Your task to perform on an android device: Clear the shopping cart on ebay. Search for bose quietcomfort 35 on ebay, select the first entry, add it to the cart, then select checkout. Image 0: 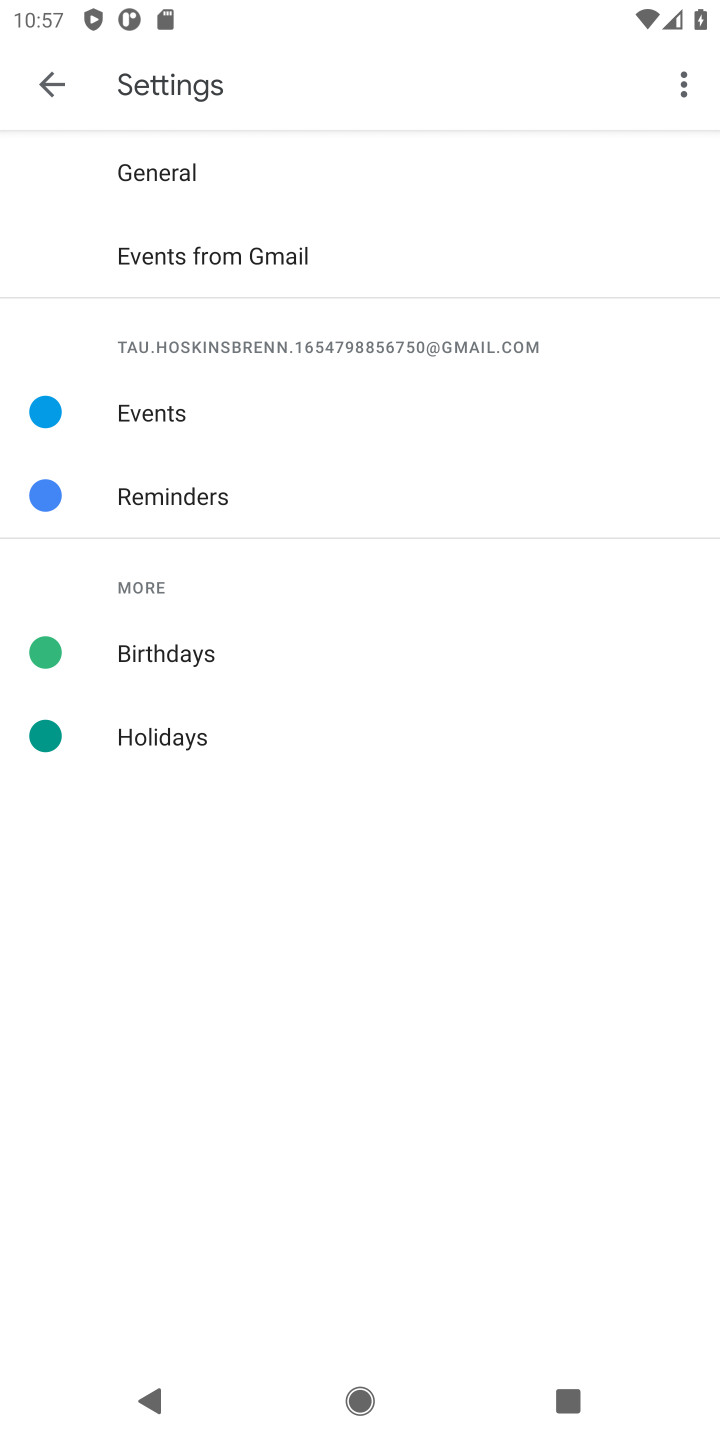
Step 0: press home button
Your task to perform on an android device: Clear the shopping cart on ebay. Search for bose quietcomfort 35 on ebay, select the first entry, add it to the cart, then select checkout. Image 1: 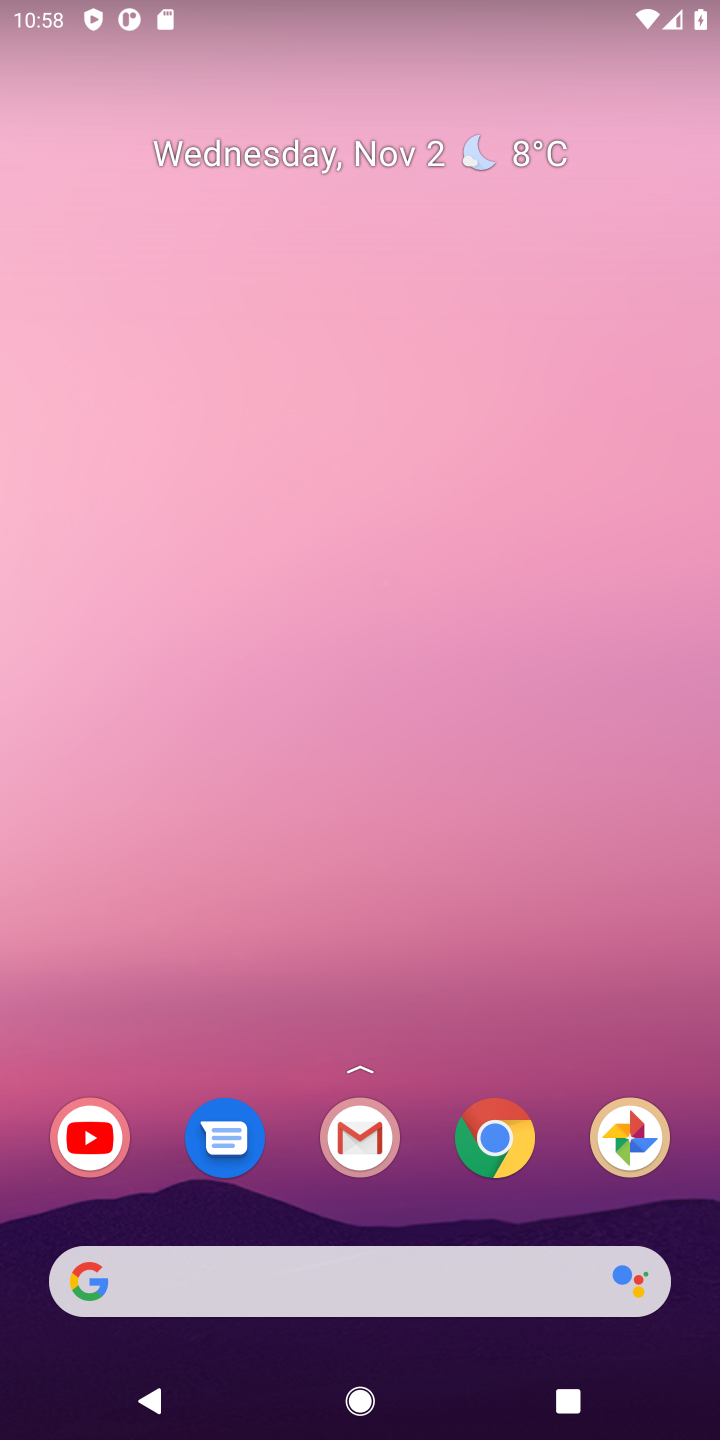
Step 1: click (507, 1179)
Your task to perform on an android device: Clear the shopping cart on ebay. Search for bose quietcomfort 35 on ebay, select the first entry, add it to the cart, then select checkout. Image 2: 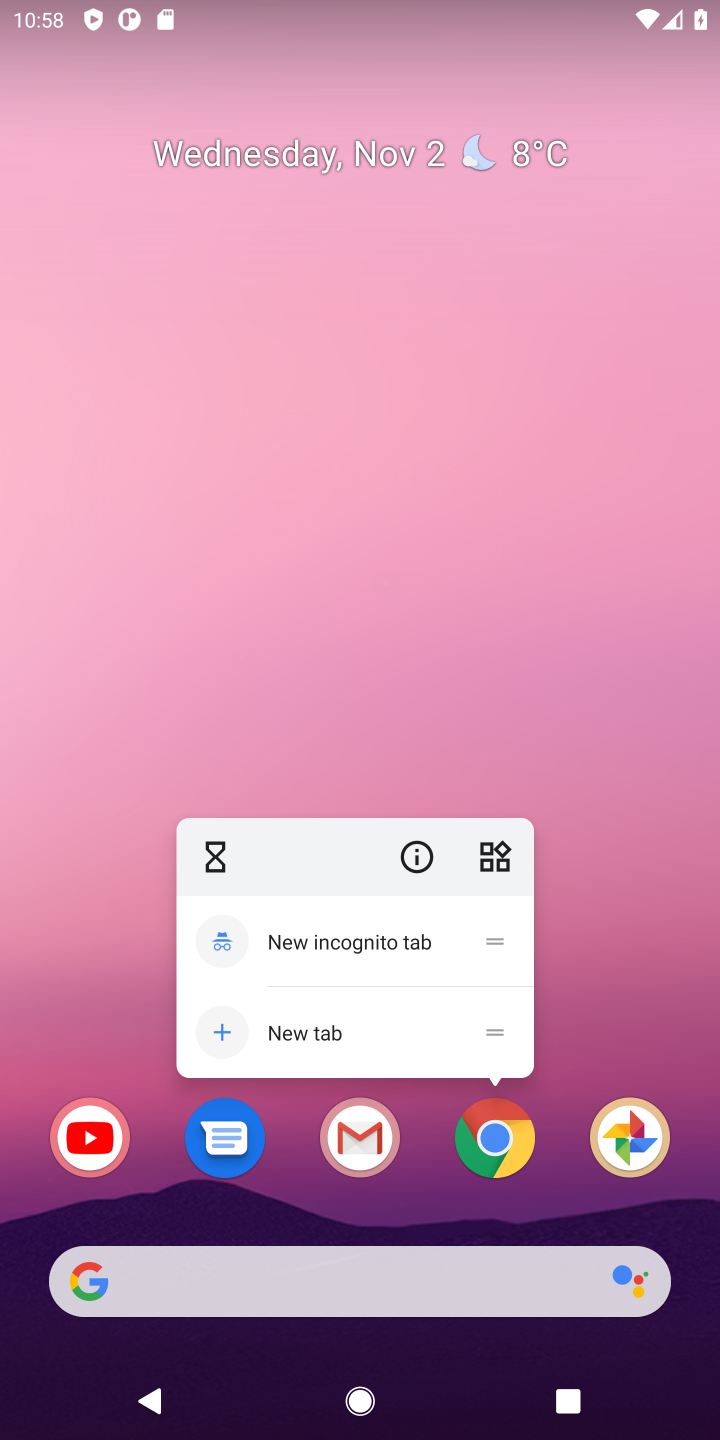
Step 2: click (472, 1172)
Your task to perform on an android device: Clear the shopping cart on ebay. Search for bose quietcomfort 35 on ebay, select the first entry, add it to the cart, then select checkout. Image 3: 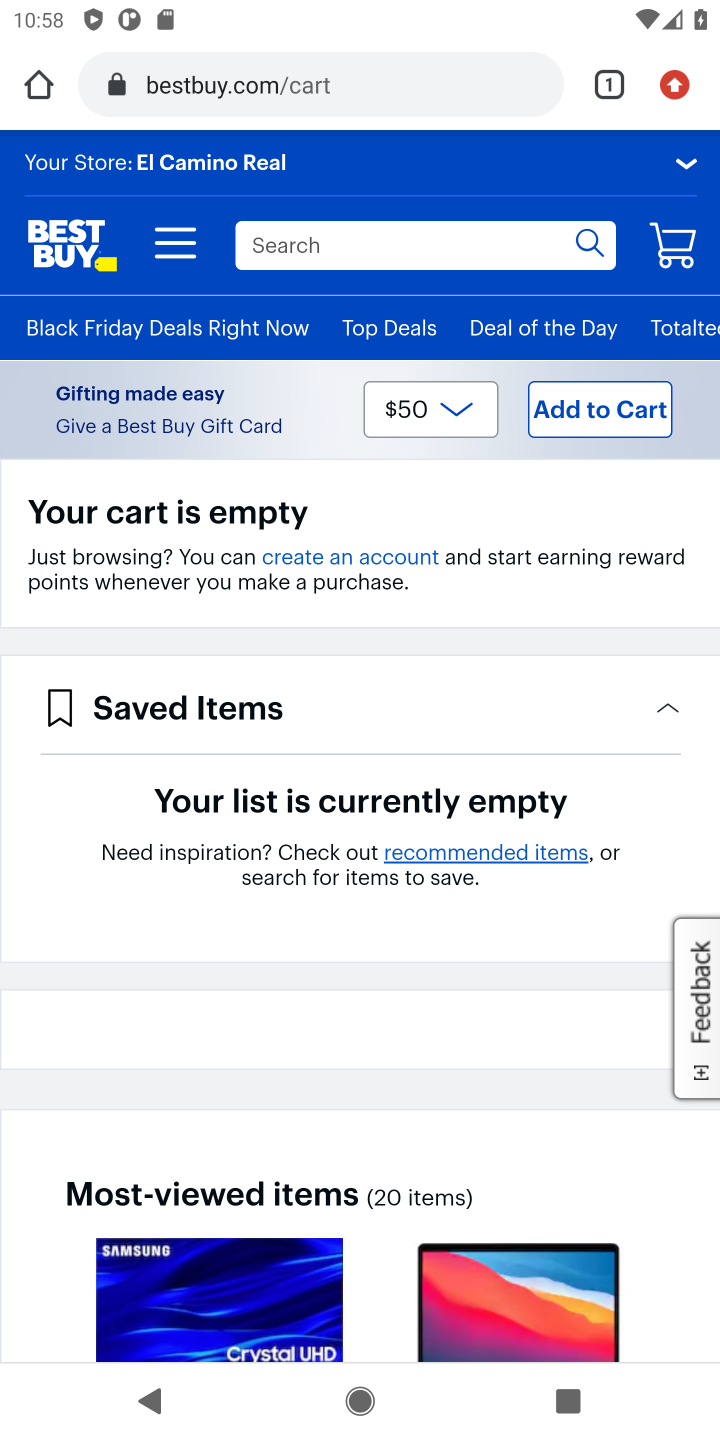
Step 3: click (266, 280)
Your task to perform on an android device: Clear the shopping cart on ebay. Search for bose quietcomfort 35 on ebay, select the first entry, add it to the cart, then select checkout. Image 4: 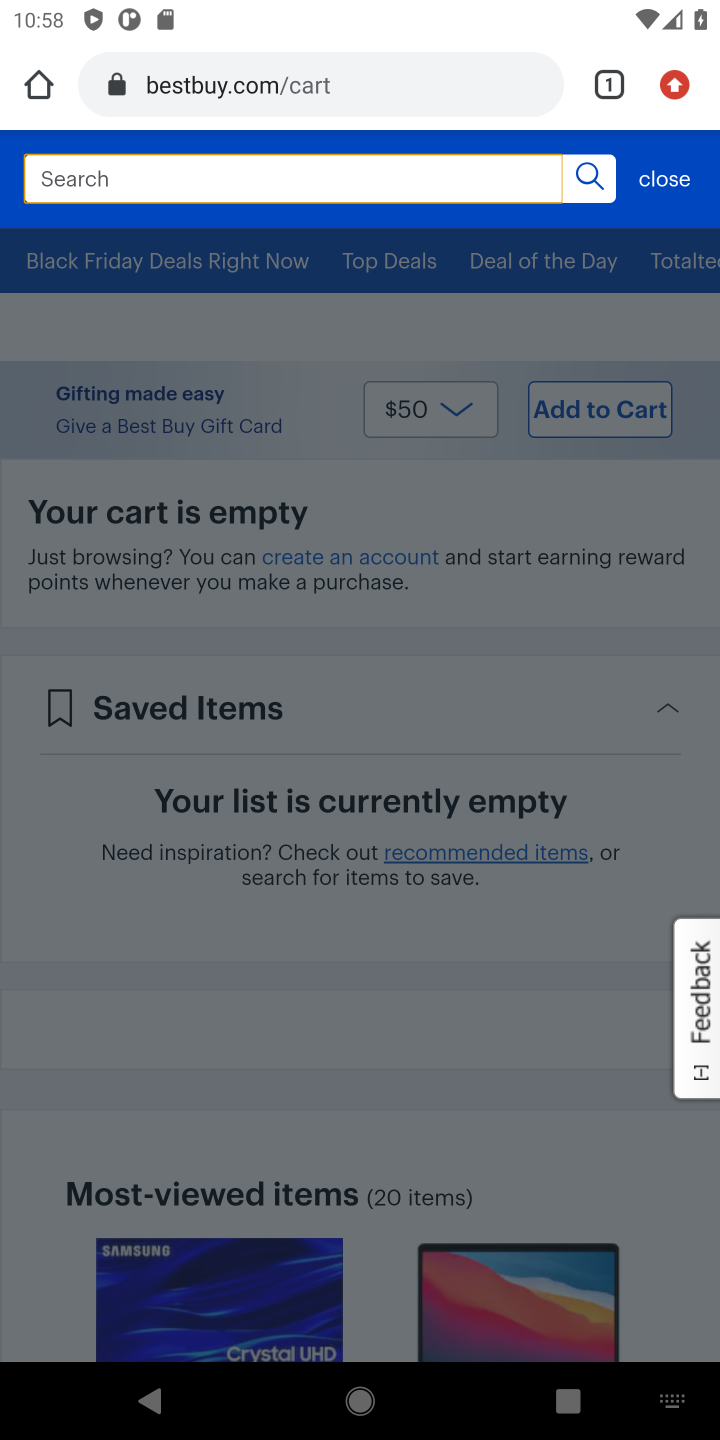
Step 4: click (235, 85)
Your task to perform on an android device: Clear the shopping cart on ebay. Search for bose quietcomfort 35 on ebay, select the first entry, add it to the cart, then select checkout. Image 5: 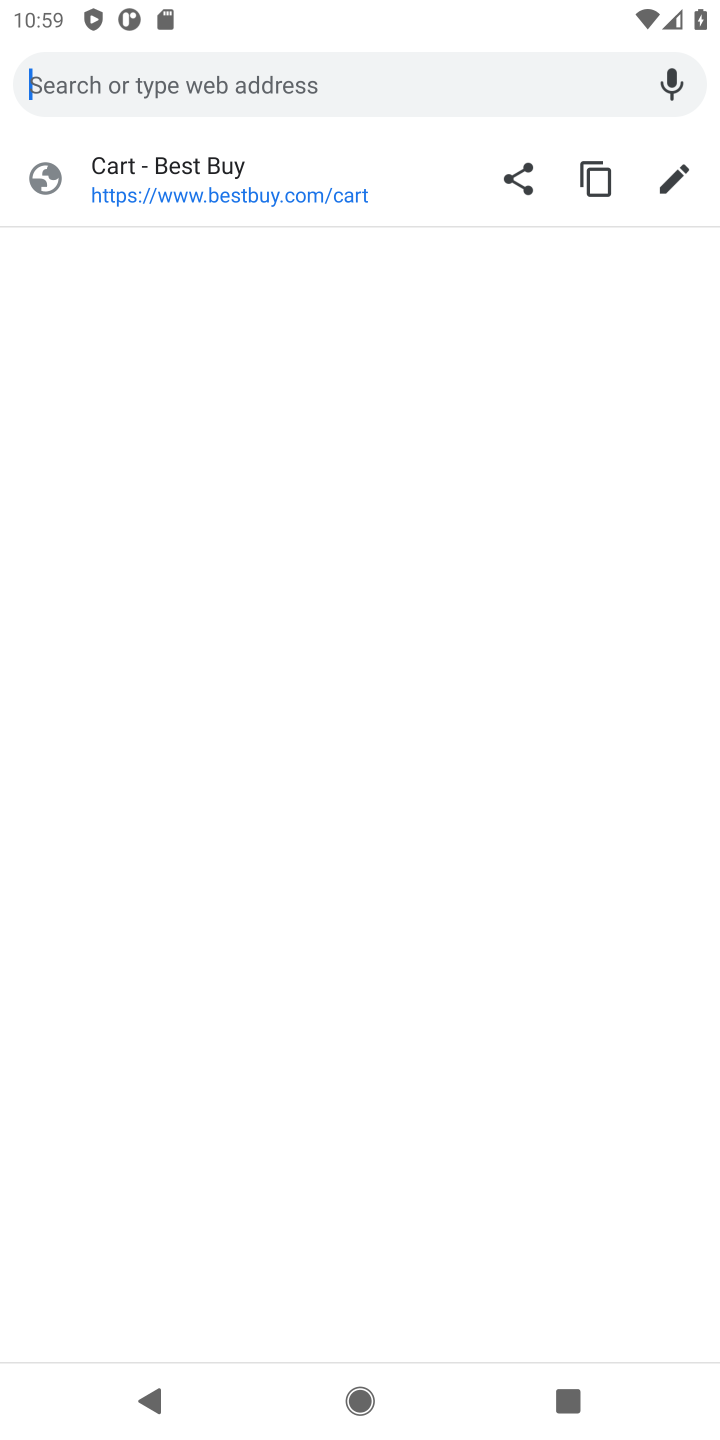
Step 5: type "ebay"
Your task to perform on an android device: Clear the shopping cart on ebay. Search for bose quietcomfort 35 on ebay, select the first entry, add it to the cart, then select checkout. Image 6: 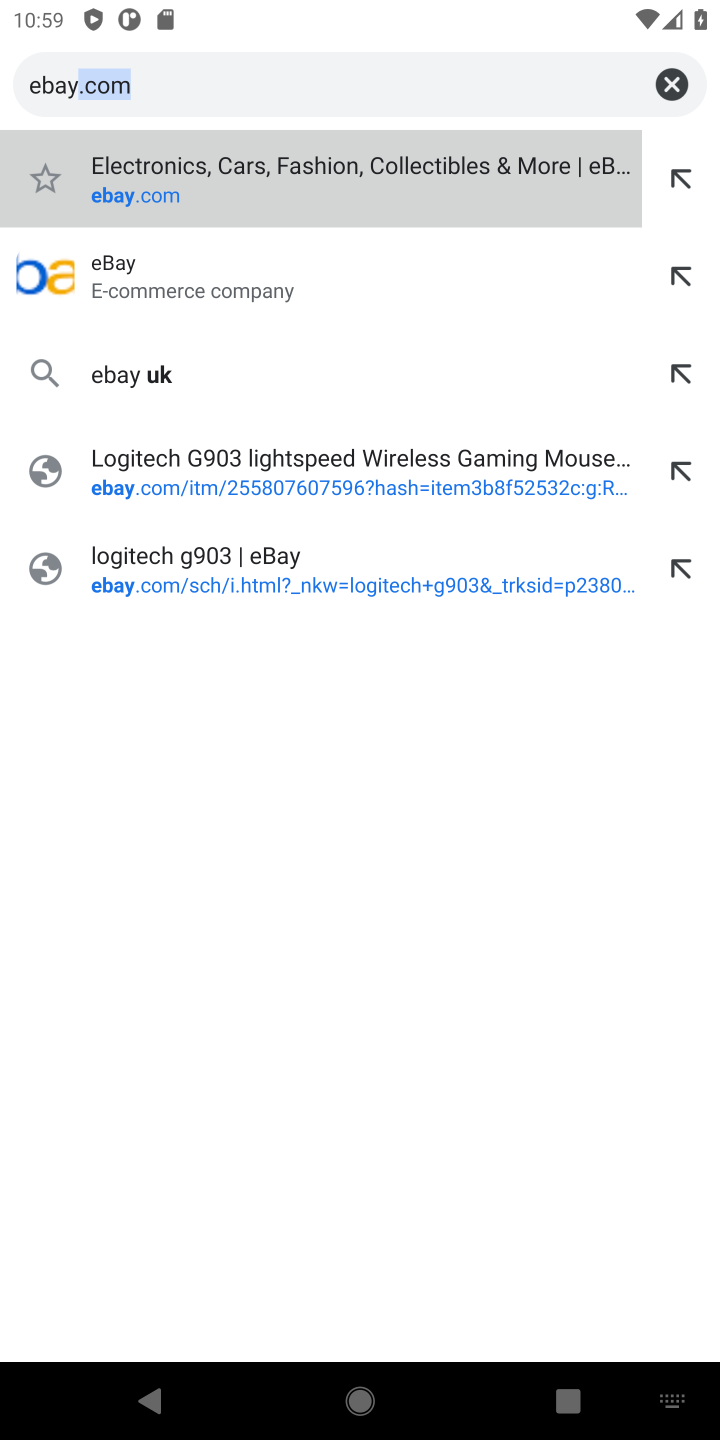
Step 6: click (259, 287)
Your task to perform on an android device: Clear the shopping cart on ebay. Search for bose quietcomfort 35 on ebay, select the first entry, add it to the cart, then select checkout. Image 7: 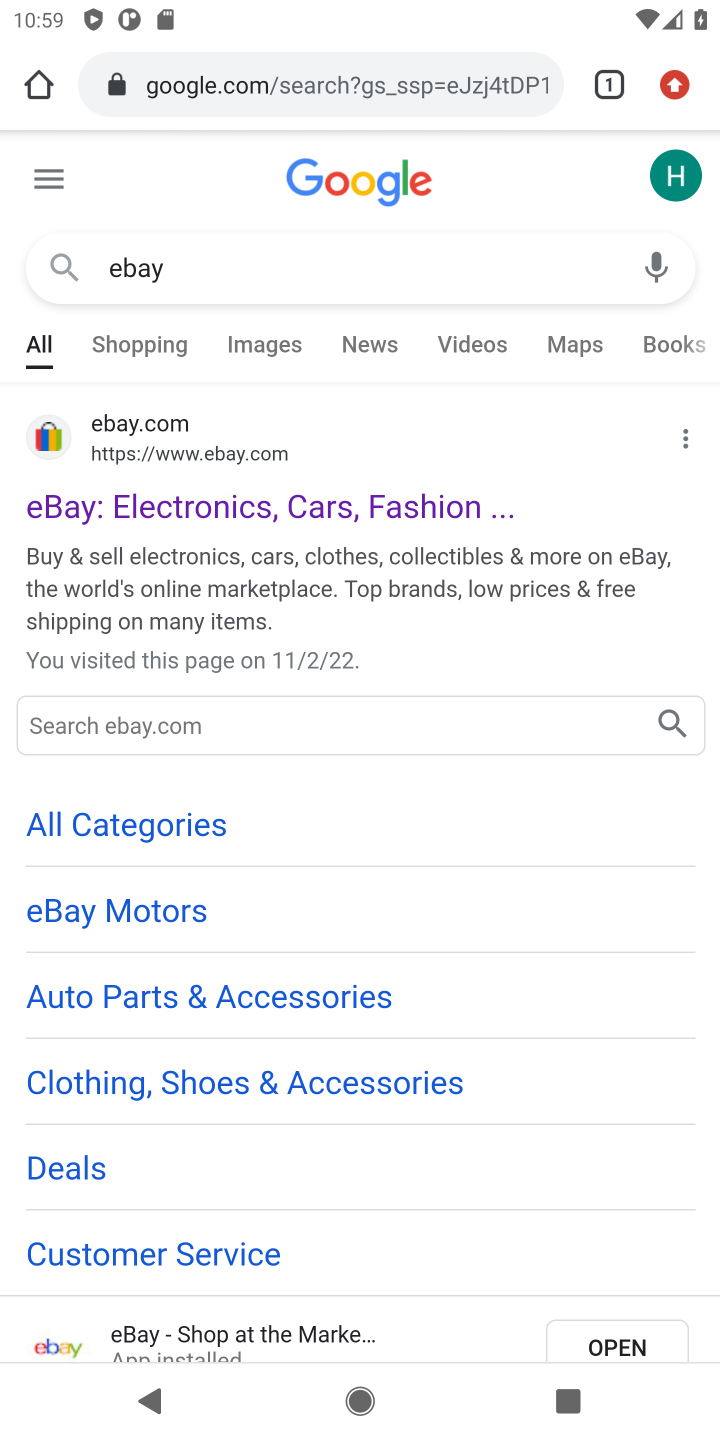
Step 7: click (112, 514)
Your task to perform on an android device: Clear the shopping cart on ebay. Search for bose quietcomfort 35 on ebay, select the first entry, add it to the cart, then select checkout. Image 8: 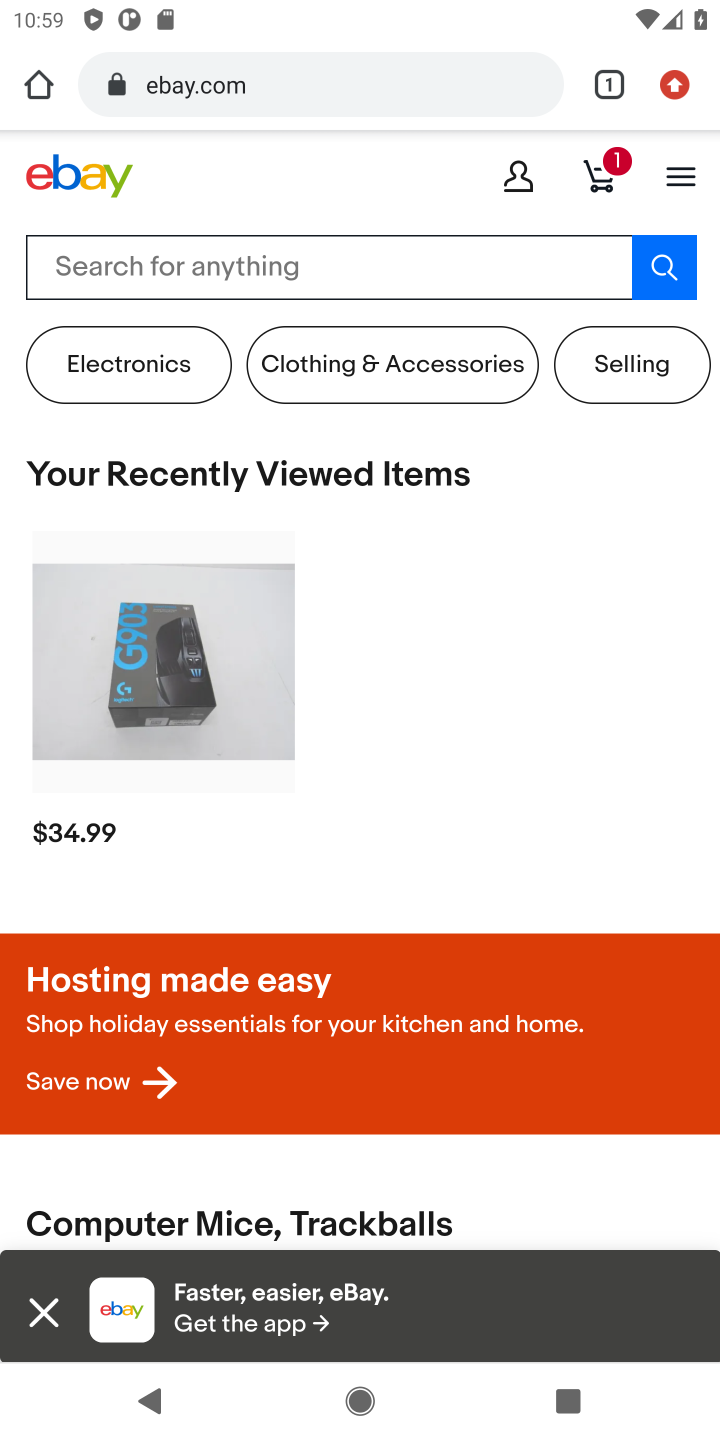
Step 8: click (616, 162)
Your task to perform on an android device: Clear the shopping cart on ebay. Search for bose quietcomfort 35 on ebay, select the first entry, add it to the cart, then select checkout. Image 9: 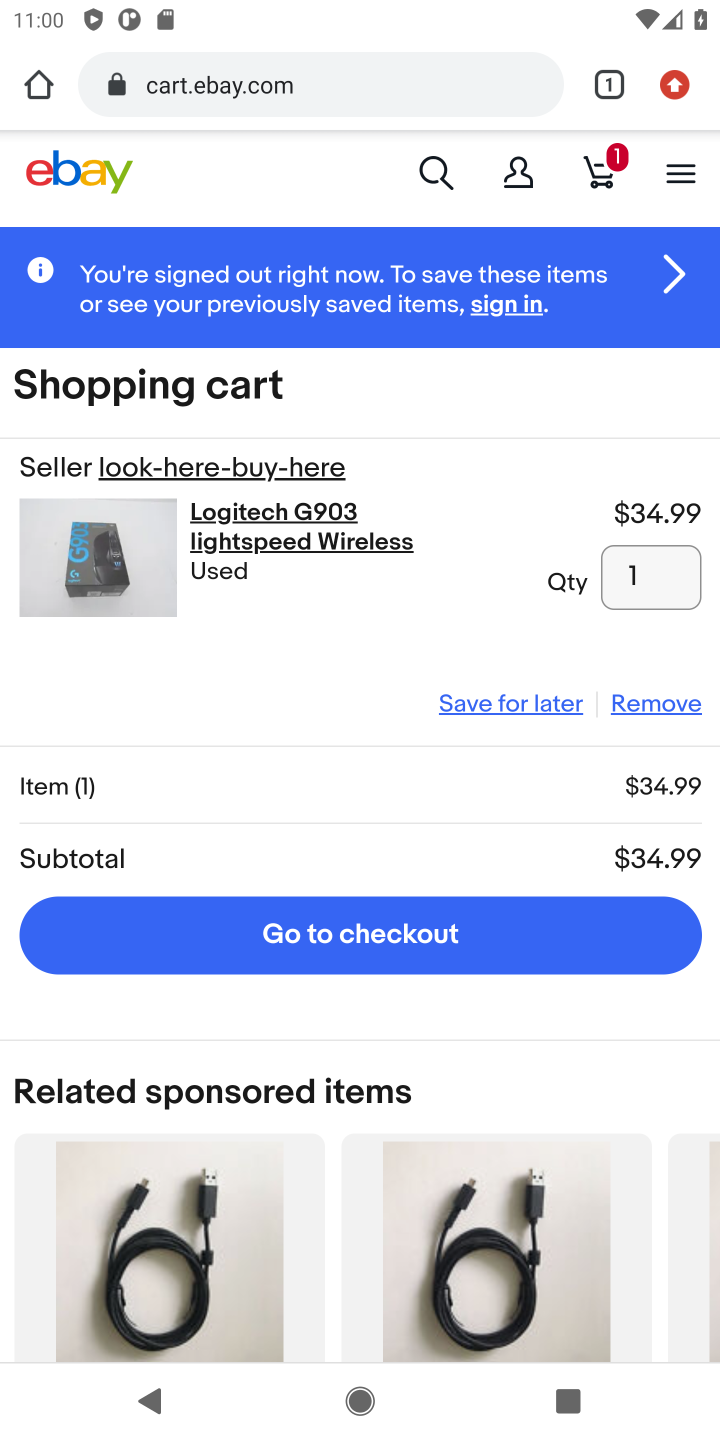
Step 9: click (667, 710)
Your task to perform on an android device: Clear the shopping cart on ebay. Search for bose quietcomfort 35 on ebay, select the first entry, add it to the cart, then select checkout. Image 10: 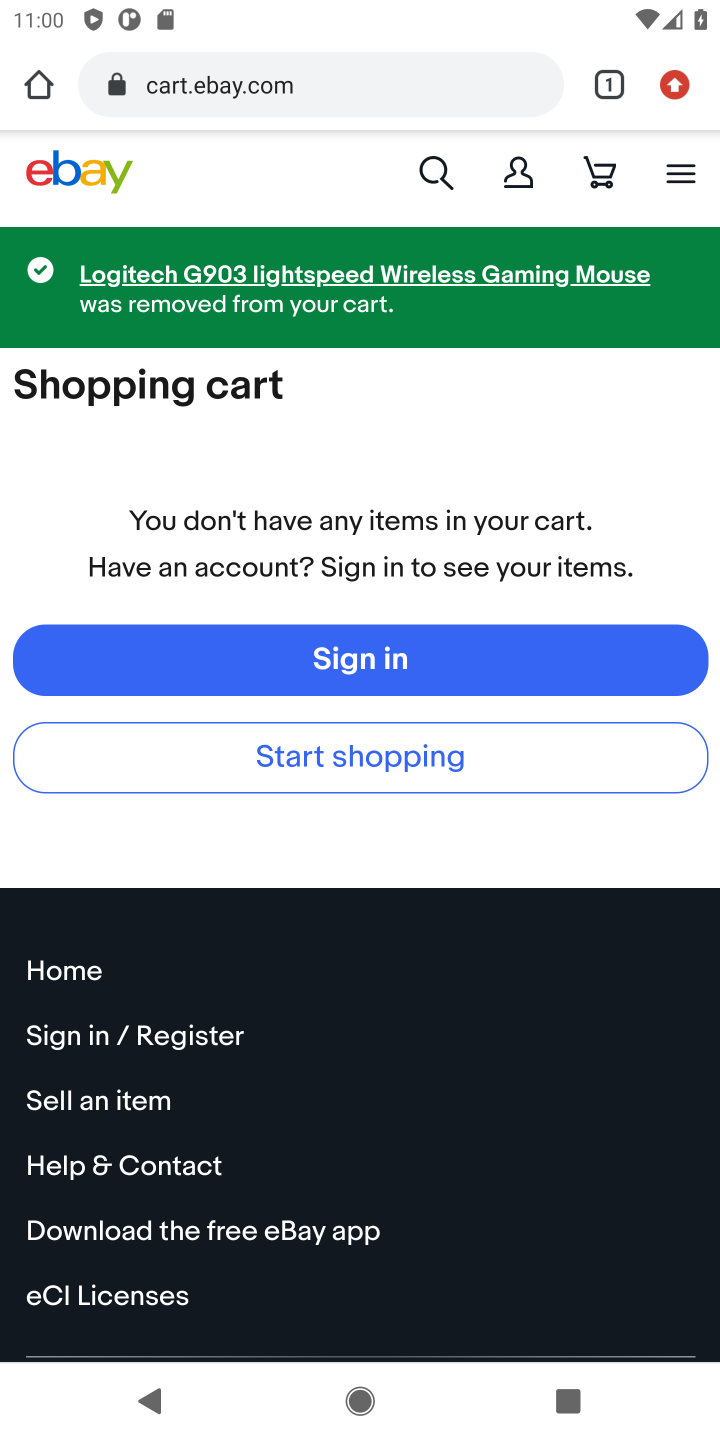
Step 10: click (419, 178)
Your task to perform on an android device: Clear the shopping cart on ebay. Search for bose quietcomfort 35 on ebay, select the first entry, add it to the cart, then select checkout. Image 11: 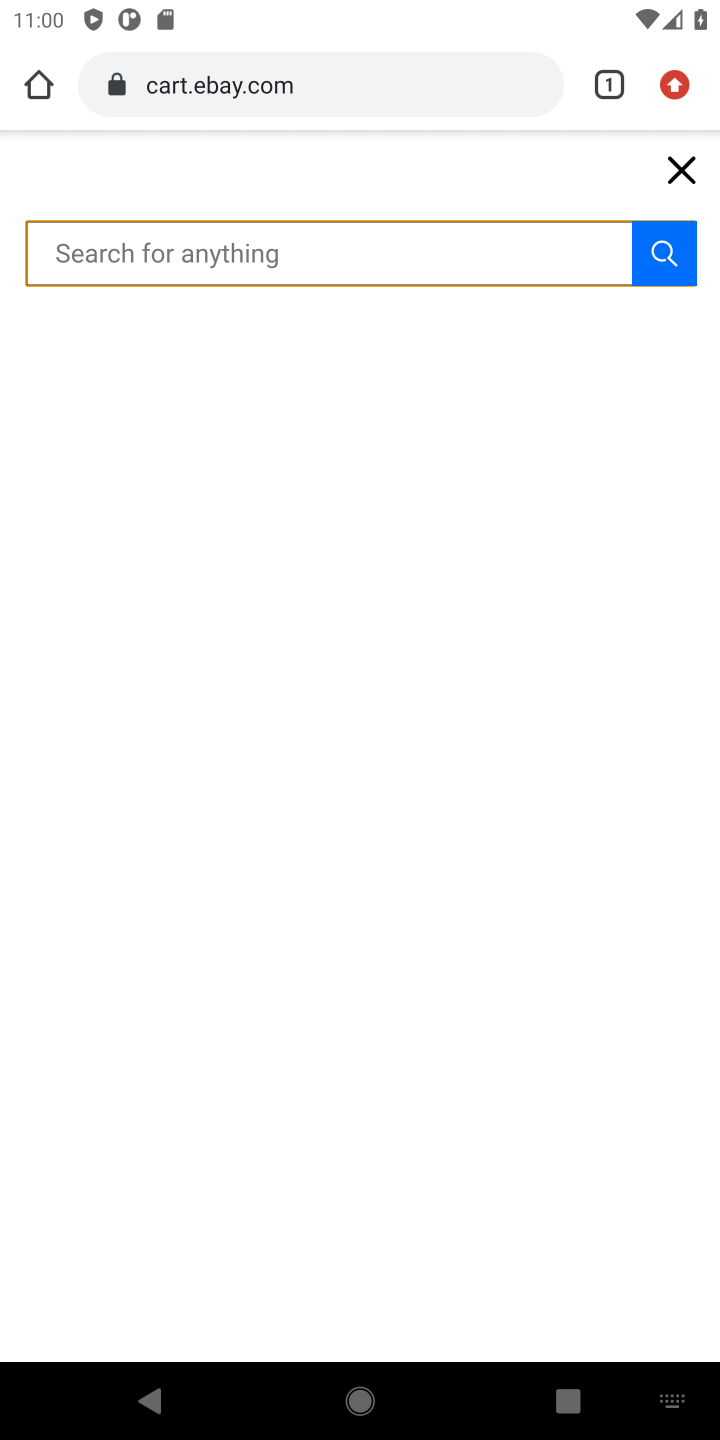
Step 11: type " bose quietcomfort 35"
Your task to perform on an android device: Clear the shopping cart on ebay. Search for bose quietcomfort 35 on ebay, select the first entry, add it to the cart, then select checkout. Image 12: 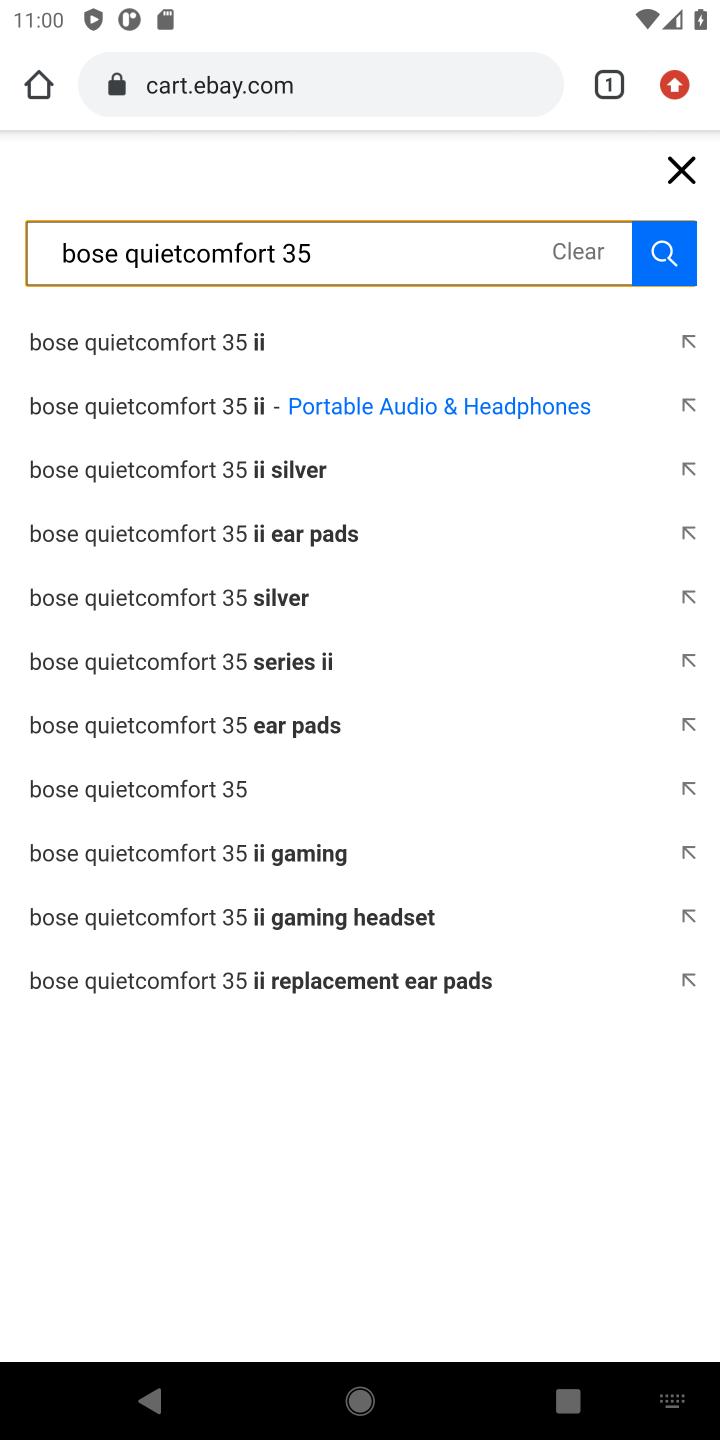
Step 12: click (669, 253)
Your task to perform on an android device: Clear the shopping cart on ebay. Search for bose quietcomfort 35 on ebay, select the first entry, add it to the cart, then select checkout. Image 13: 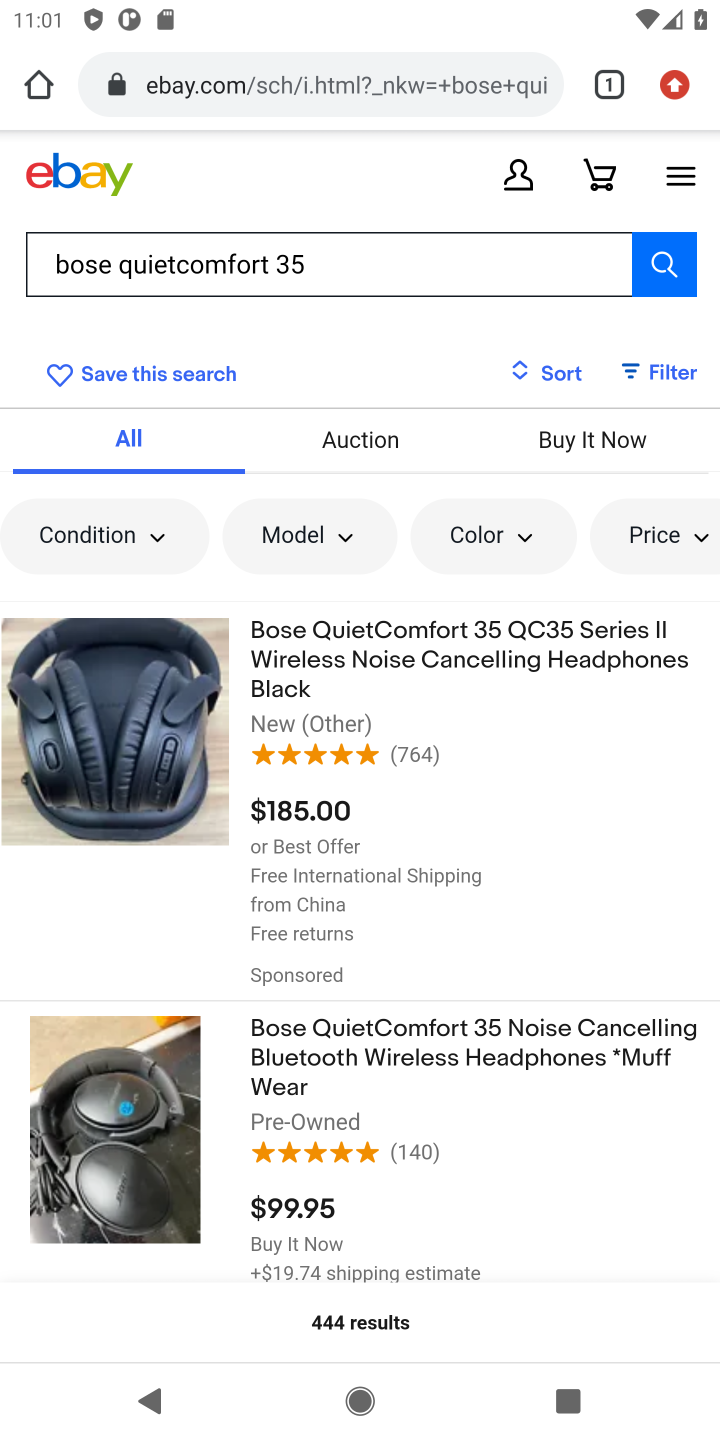
Step 13: click (445, 646)
Your task to perform on an android device: Clear the shopping cart on ebay. Search for bose quietcomfort 35 on ebay, select the first entry, add it to the cart, then select checkout. Image 14: 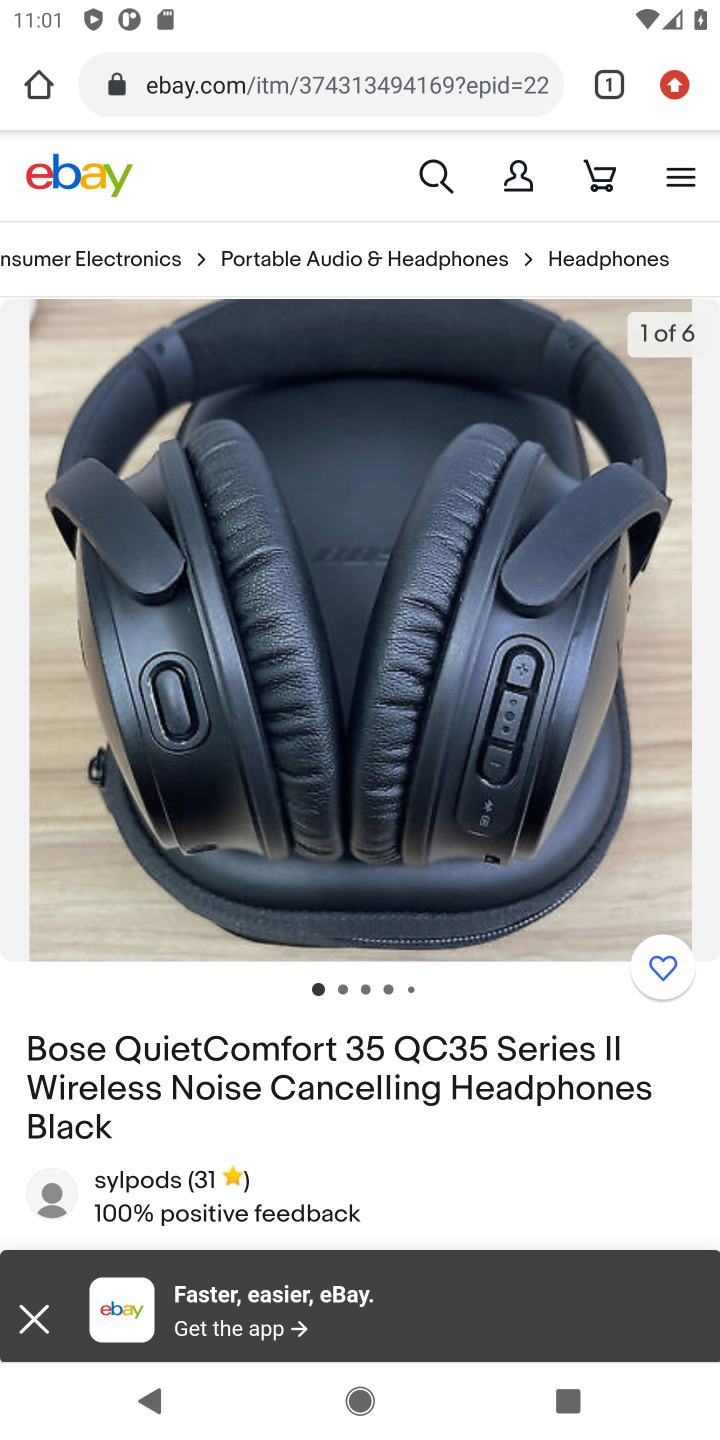
Step 14: drag from (360, 1124) to (437, 243)
Your task to perform on an android device: Clear the shopping cart on ebay. Search for bose quietcomfort 35 on ebay, select the first entry, add it to the cart, then select checkout. Image 15: 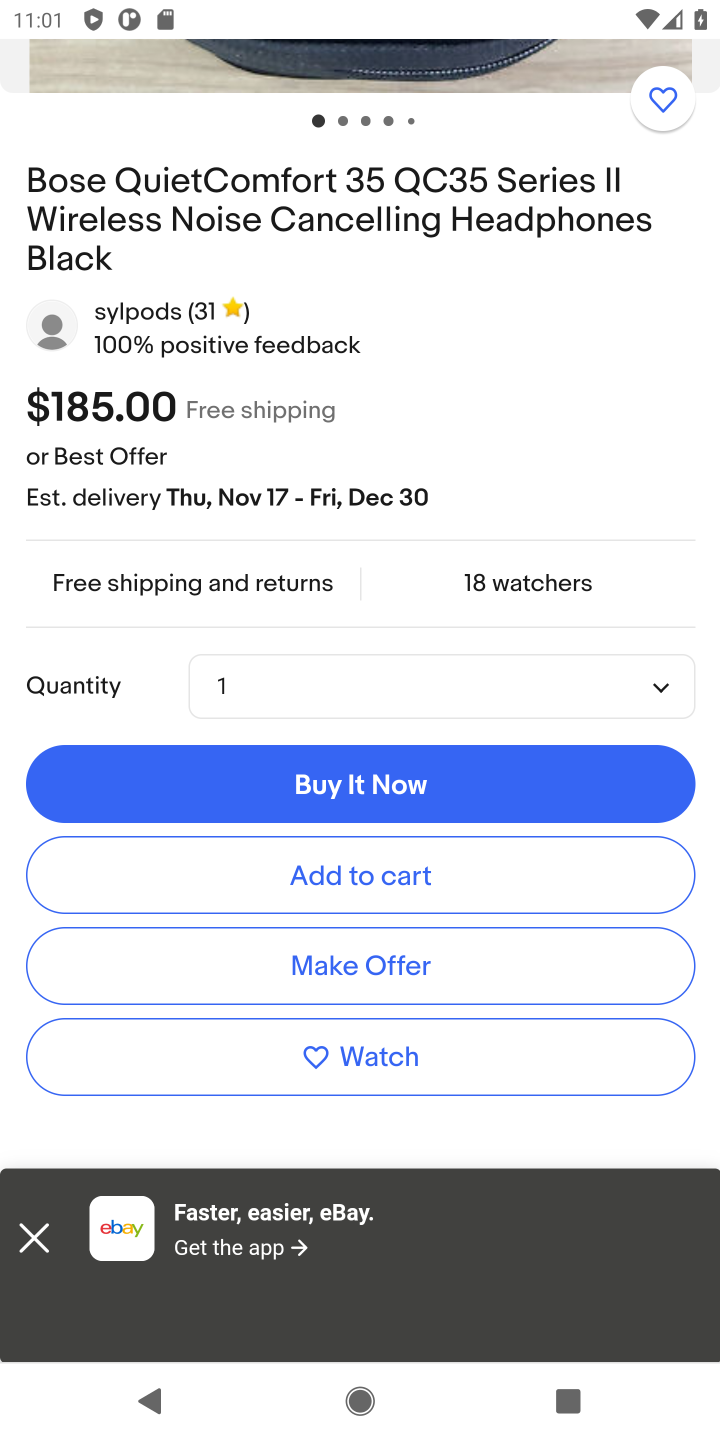
Step 15: click (370, 863)
Your task to perform on an android device: Clear the shopping cart on ebay. Search for bose quietcomfort 35 on ebay, select the first entry, add it to the cart, then select checkout. Image 16: 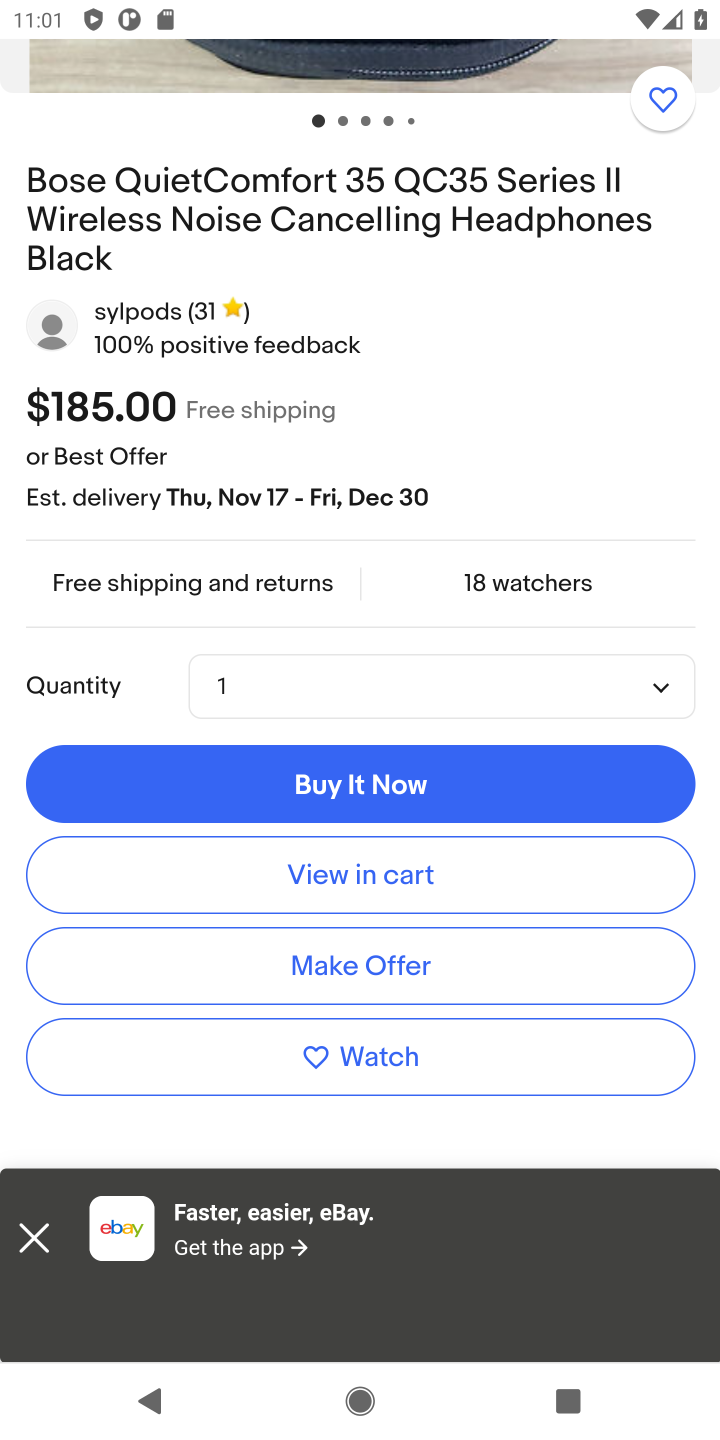
Step 16: click (370, 863)
Your task to perform on an android device: Clear the shopping cart on ebay. Search for bose quietcomfort 35 on ebay, select the first entry, add it to the cart, then select checkout. Image 17: 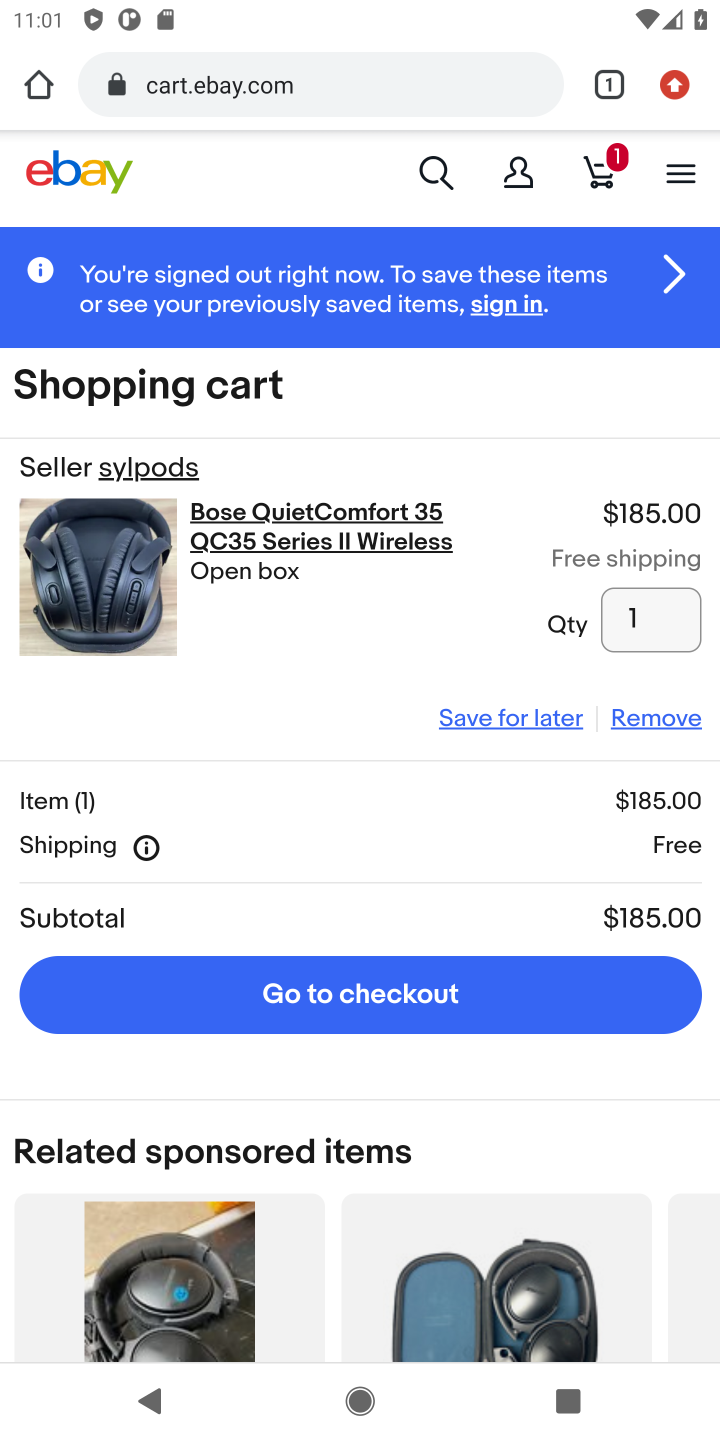
Step 17: click (320, 996)
Your task to perform on an android device: Clear the shopping cart on ebay. Search for bose quietcomfort 35 on ebay, select the first entry, add it to the cart, then select checkout. Image 18: 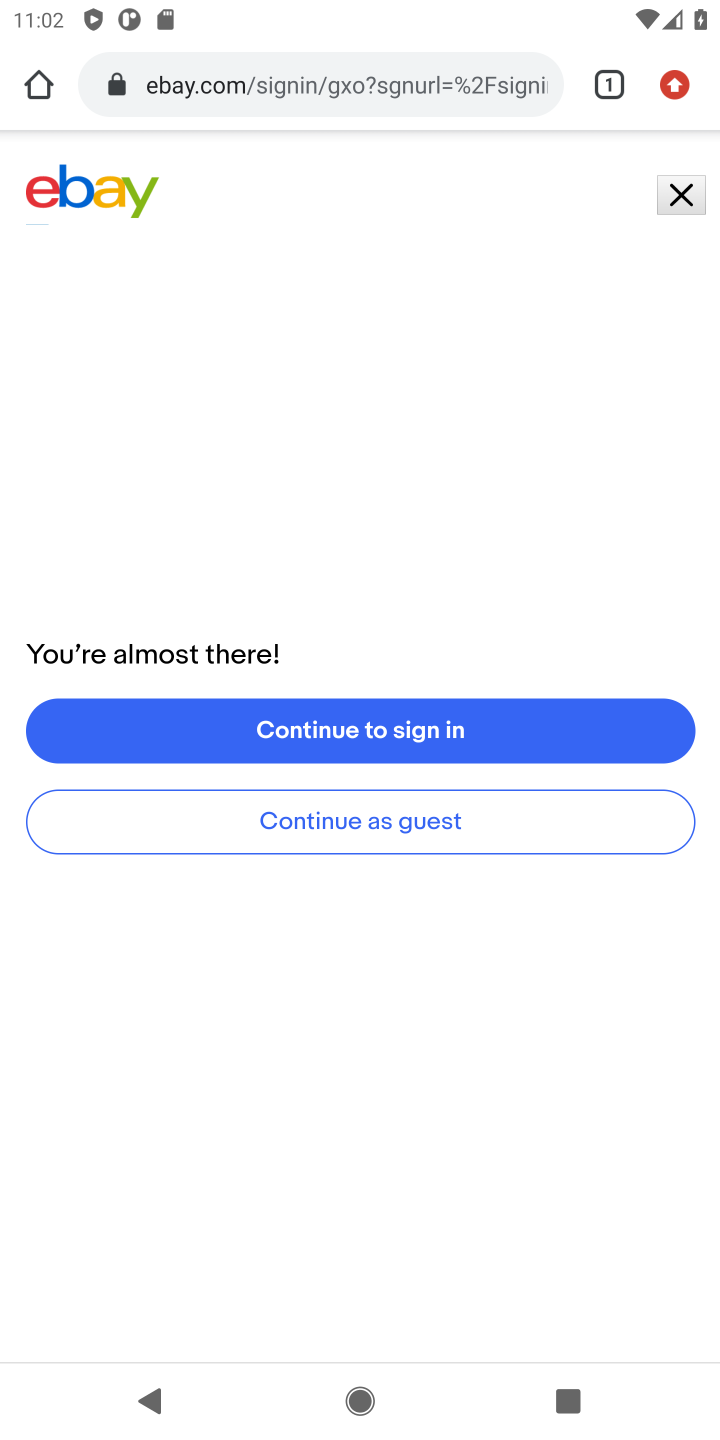
Step 18: task complete